Your task to perform on an android device: Search for sushi restaurants on Maps Image 0: 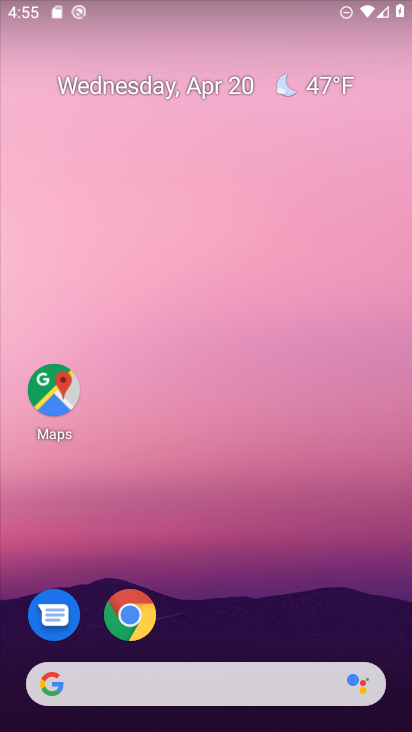
Step 0: click (57, 398)
Your task to perform on an android device: Search for sushi restaurants on Maps Image 1: 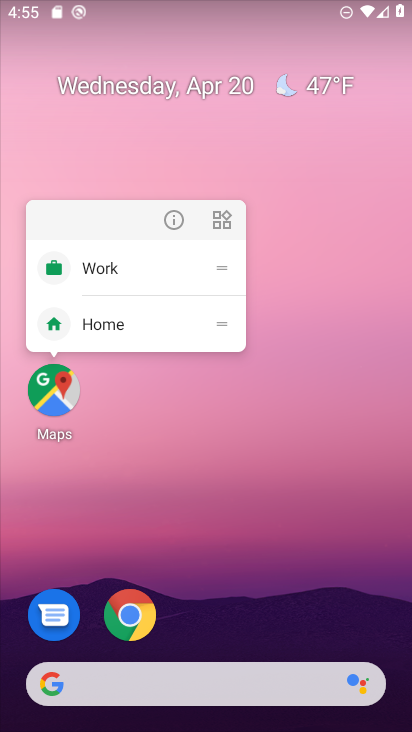
Step 1: click (60, 396)
Your task to perform on an android device: Search for sushi restaurants on Maps Image 2: 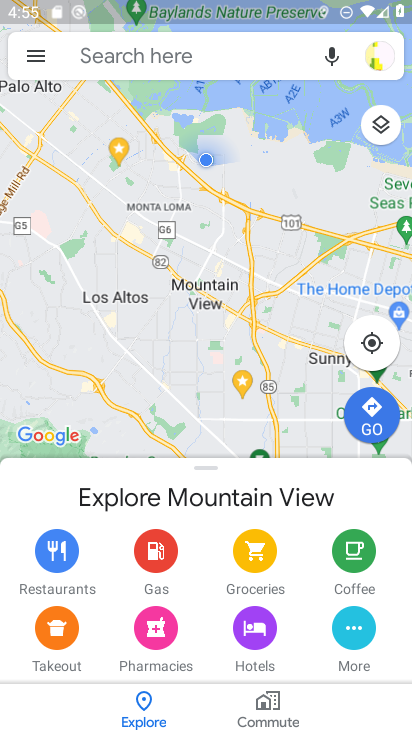
Step 2: click (197, 57)
Your task to perform on an android device: Search for sushi restaurants on Maps Image 3: 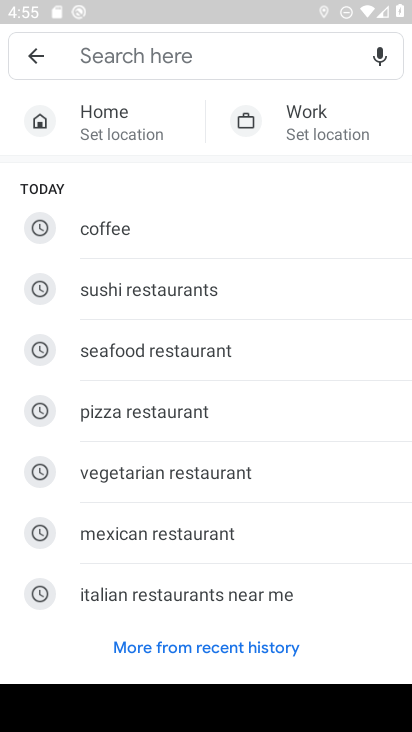
Step 3: click (141, 291)
Your task to perform on an android device: Search for sushi restaurants on Maps Image 4: 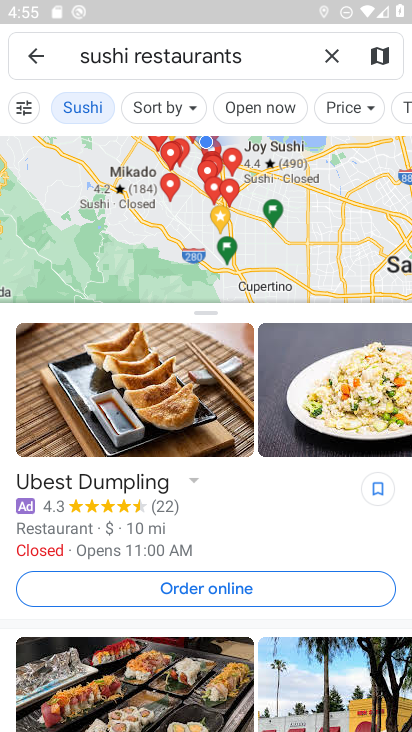
Step 4: task complete